Your task to perform on an android device: open app "Adobe Acrobat Reader: Edit PDF" (install if not already installed) Image 0: 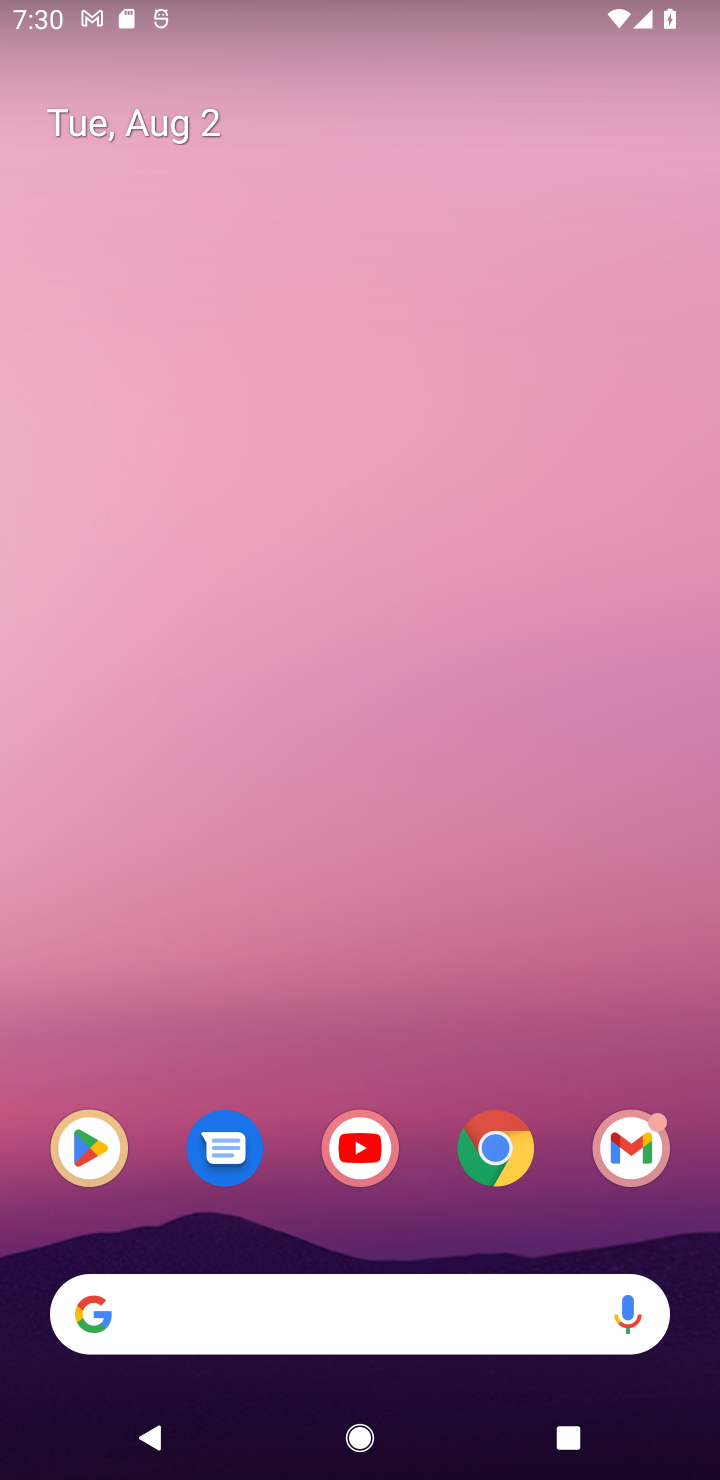
Step 0: drag from (556, 1028) to (218, 151)
Your task to perform on an android device: open app "Adobe Acrobat Reader: Edit PDF" (install if not already installed) Image 1: 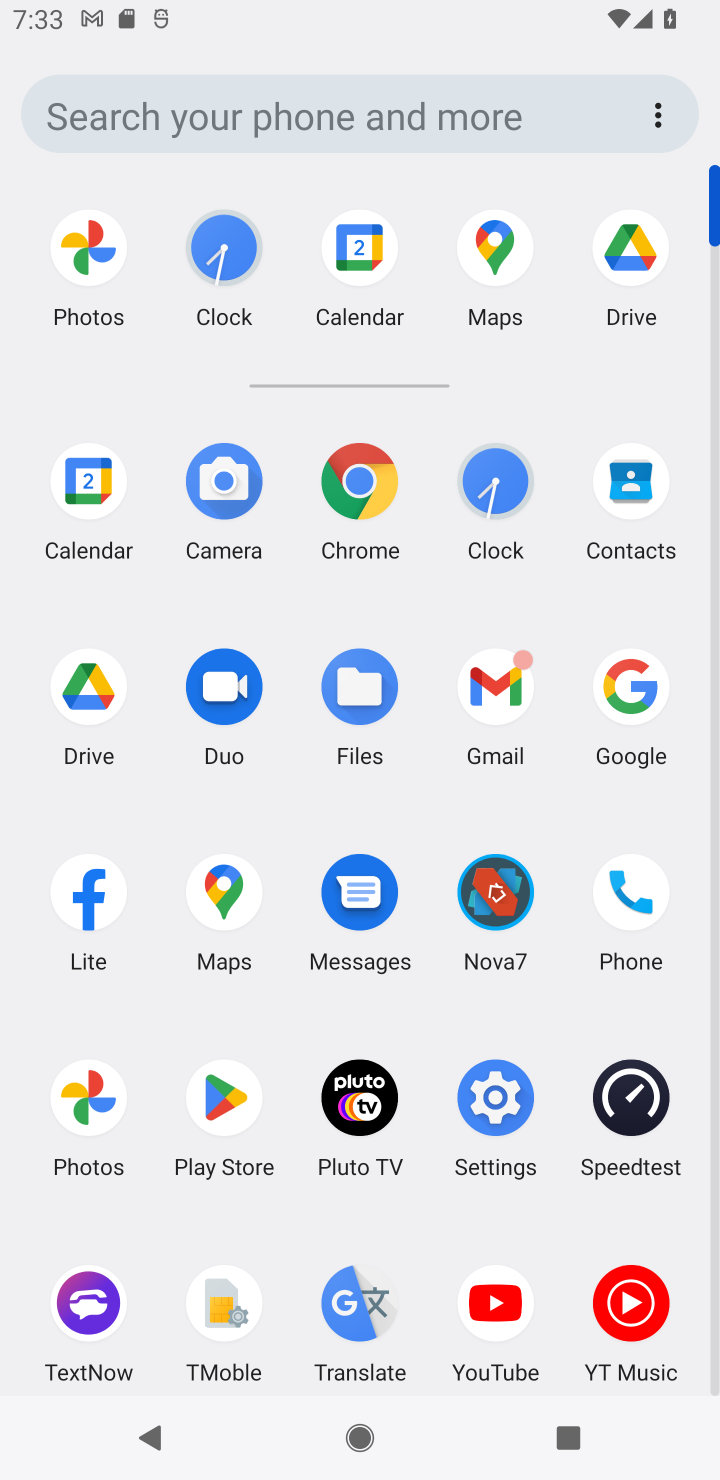
Step 1: click (235, 1078)
Your task to perform on an android device: open app "Adobe Acrobat Reader: Edit PDF" (install if not already installed) Image 2: 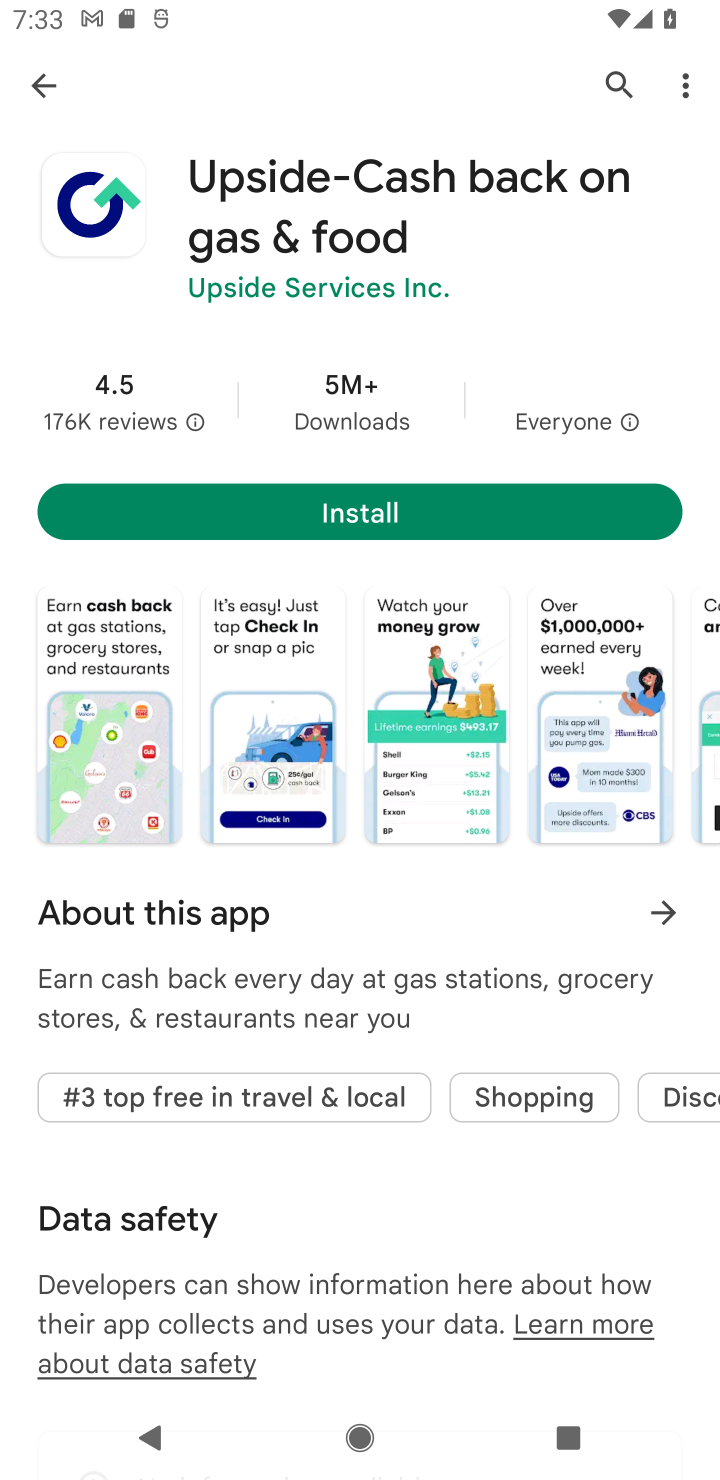
Step 2: press back button
Your task to perform on an android device: open app "Adobe Acrobat Reader: Edit PDF" (install if not already installed) Image 3: 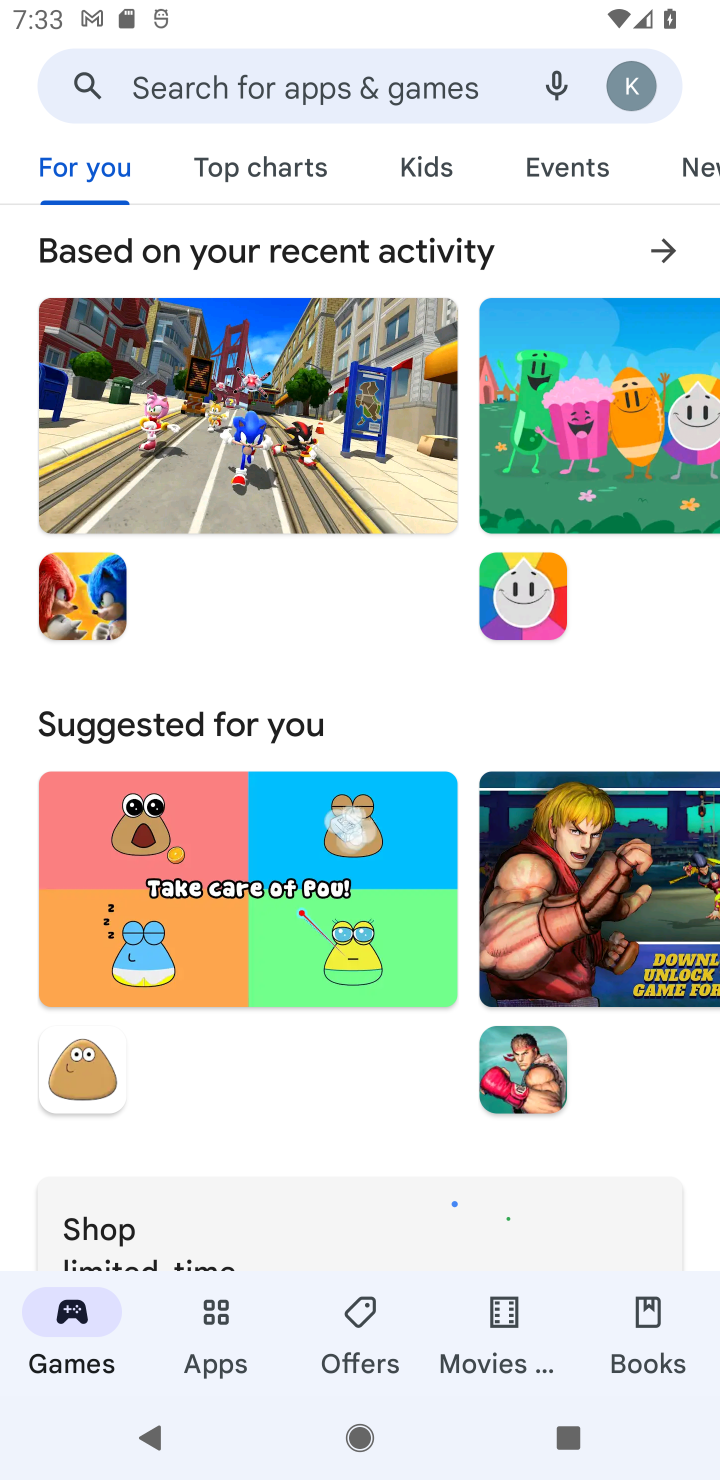
Step 3: click (247, 109)
Your task to perform on an android device: open app "Adobe Acrobat Reader: Edit PDF" (install if not already installed) Image 4: 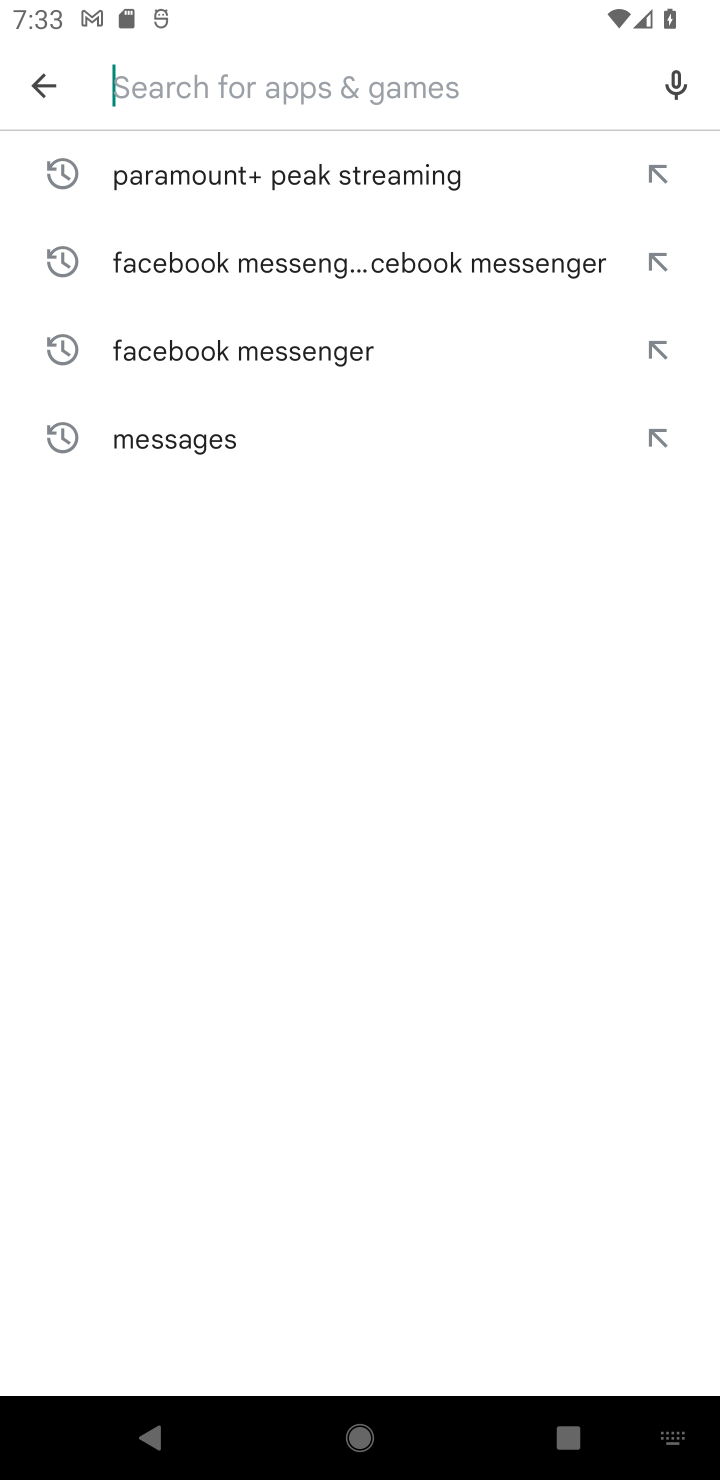
Step 4: type ""
Your task to perform on an android device: open app "Adobe Acrobat Reader: Edit PDF" (install if not already installed) Image 5: 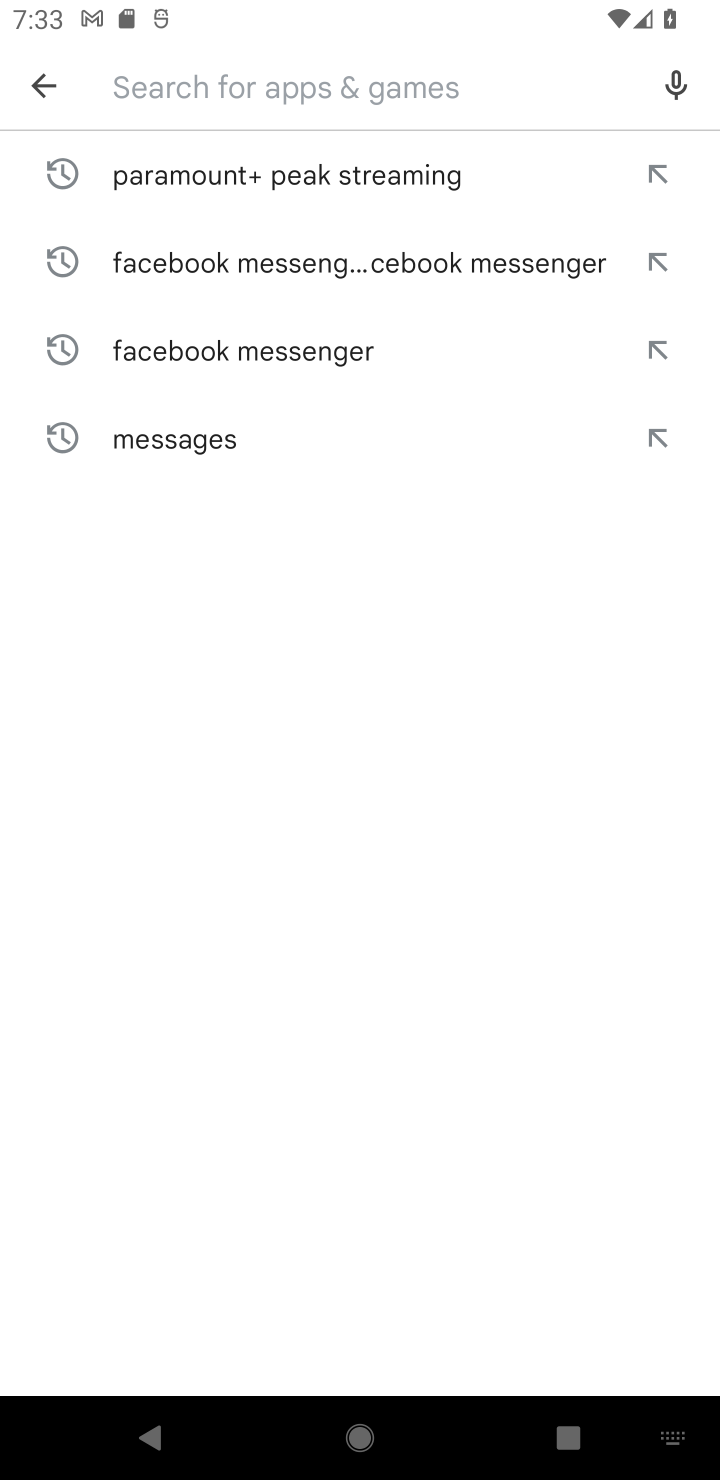
Step 5: type "Adobe Acrobat Reader: Edit PDF"
Your task to perform on an android device: open app "Adobe Acrobat Reader: Edit PDF" (install if not already installed) Image 6: 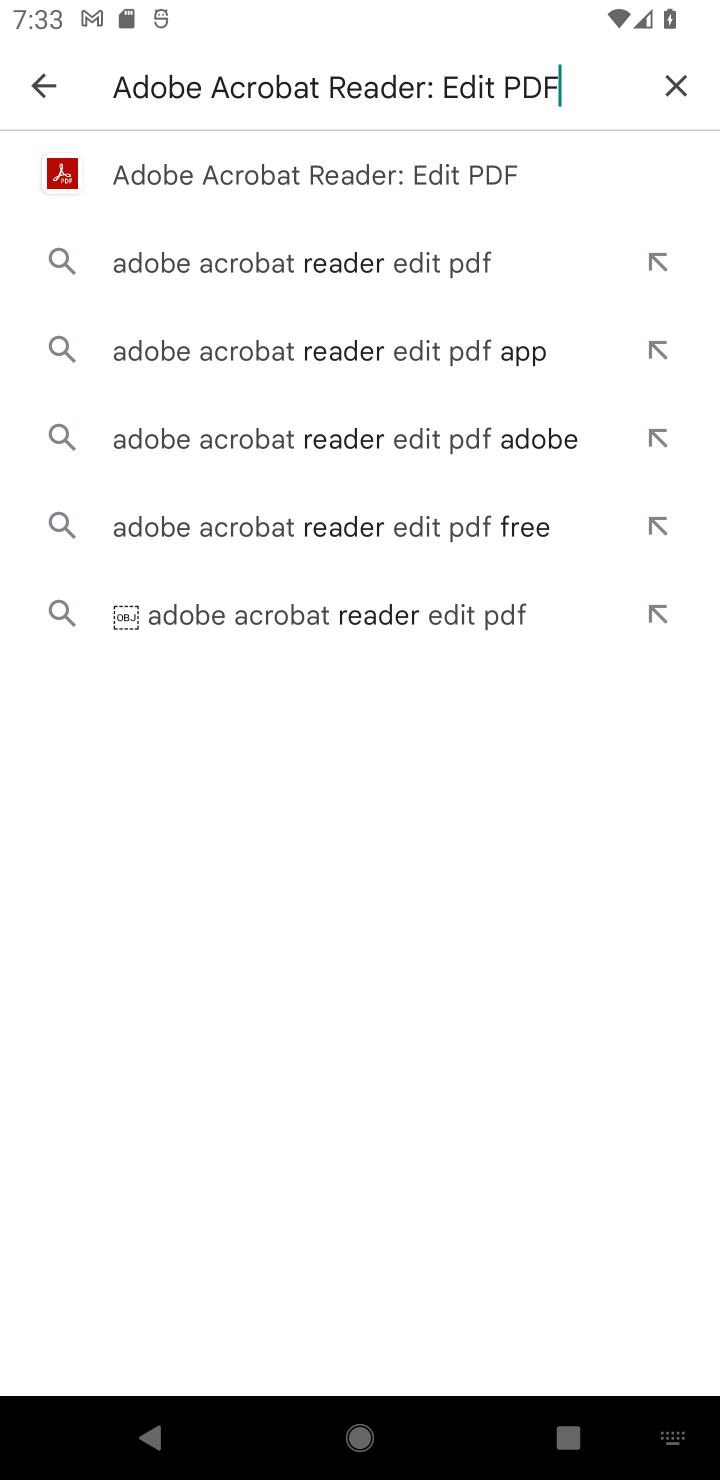
Step 6: click (251, 181)
Your task to perform on an android device: open app "Adobe Acrobat Reader: Edit PDF" (install if not already installed) Image 7: 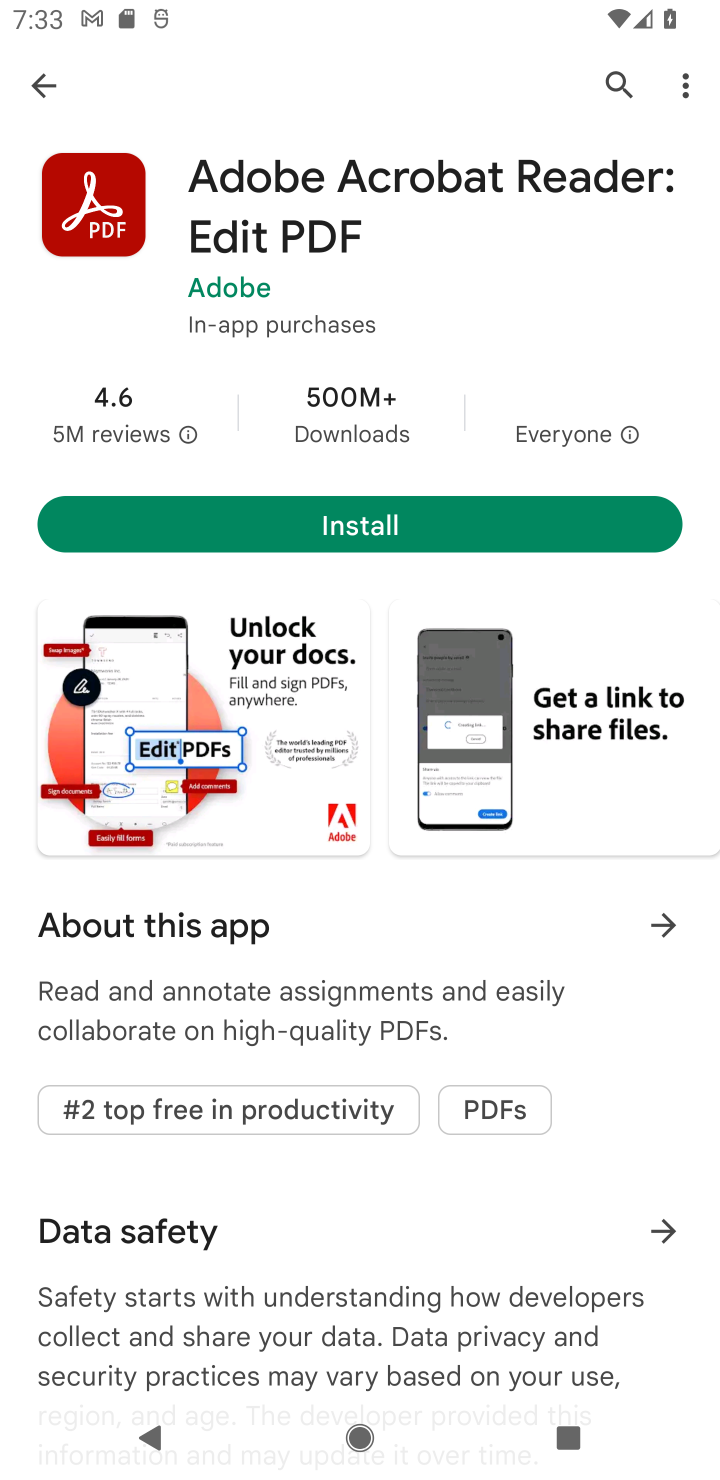
Step 7: task complete